Your task to perform on an android device: star an email in the gmail app Image 0: 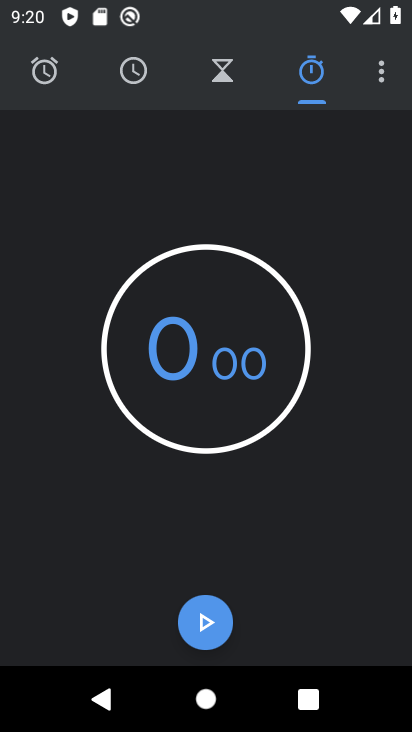
Step 0: press home button
Your task to perform on an android device: star an email in the gmail app Image 1: 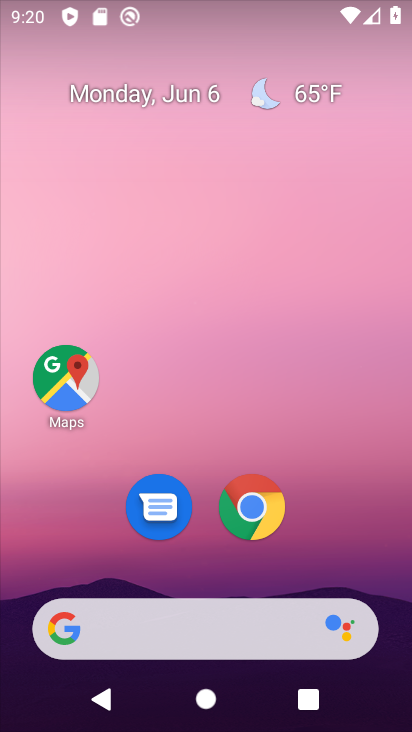
Step 1: drag from (291, 560) to (274, 264)
Your task to perform on an android device: star an email in the gmail app Image 2: 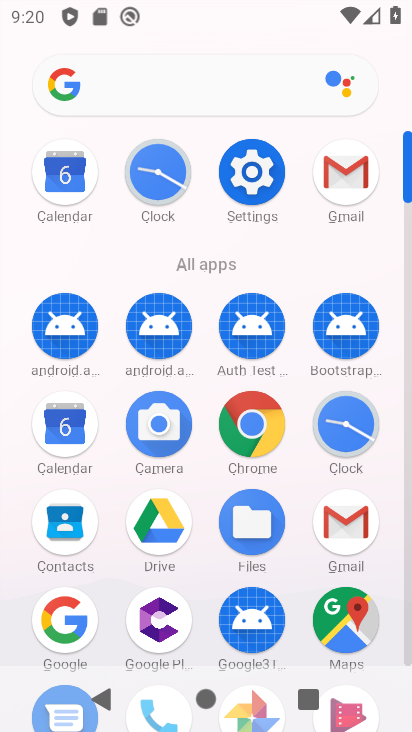
Step 2: click (348, 527)
Your task to perform on an android device: star an email in the gmail app Image 3: 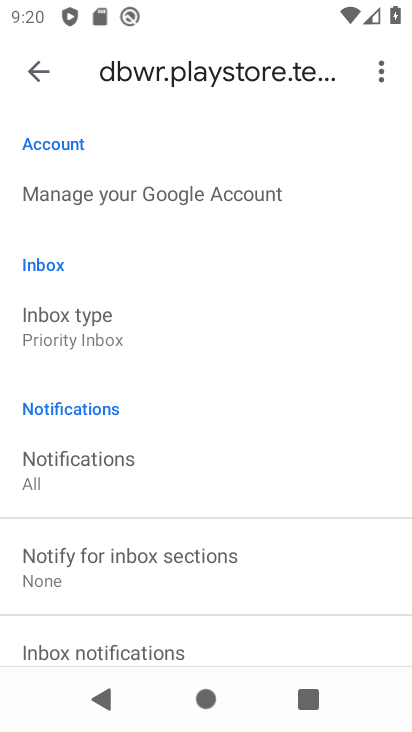
Step 3: drag from (202, 266) to (201, 574)
Your task to perform on an android device: star an email in the gmail app Image 4: 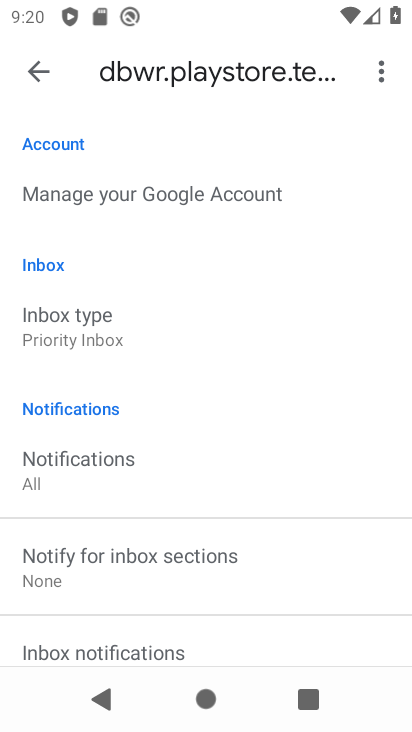
Step 4: drag from (208, 553) to (44, 75)
Your task to perform on an android device: star an email in the gmail app Image 5: 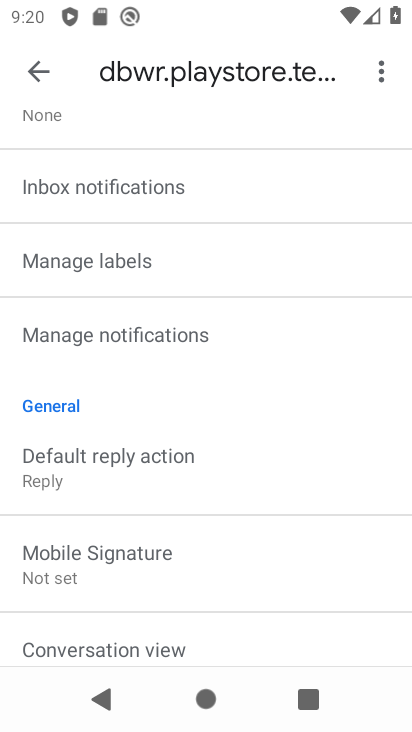
Step 5: click (37, 77)
Your task to perform on an android device: star an email in the gmail app Image 6: 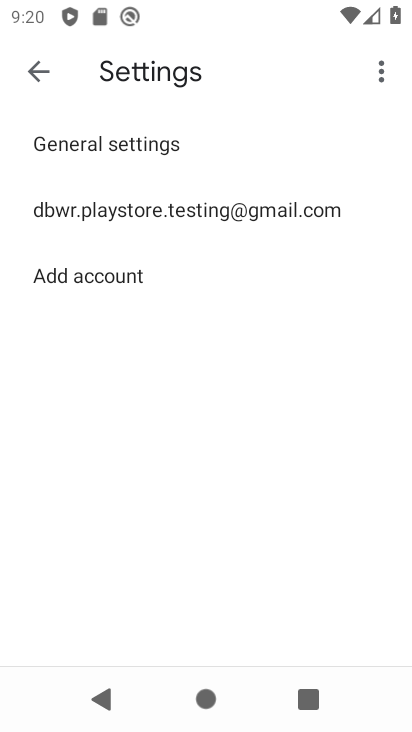
Step 6: click (43, 61)
Your task to perform on an android device: star an email in the gmail app Image 7: 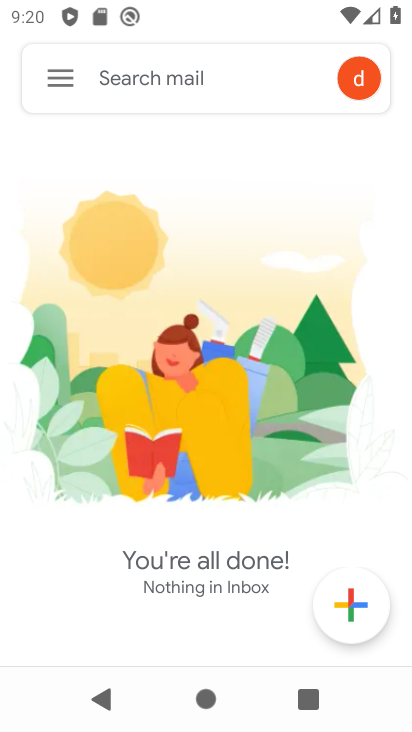
Step 7: click (59, 66)
Your task to perform on an android device: star an email in the gmail app Image 8: 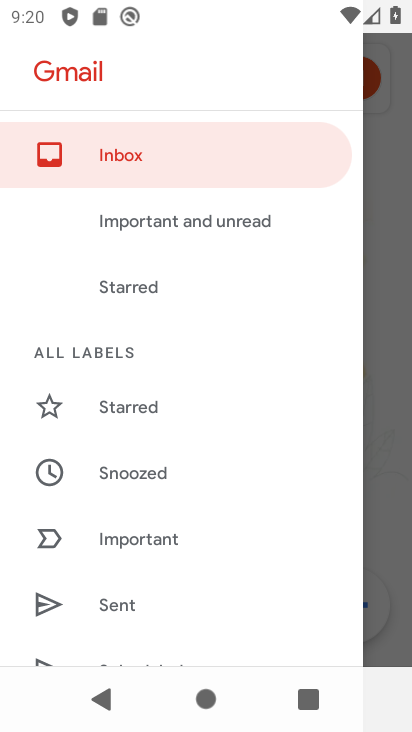
Step 8: click (157, 396)
Your task to perform on an android device: star an email in the gmail app Image 9: 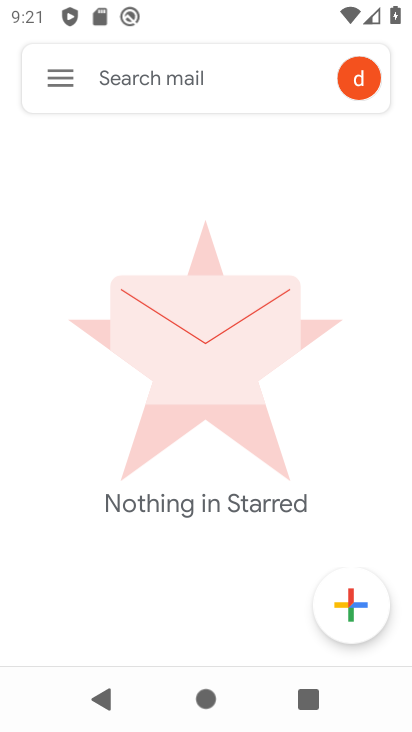
Step 9: task complete